Your task to perform on an android device: Search for seafood restaurants on Google Maps Image 0: 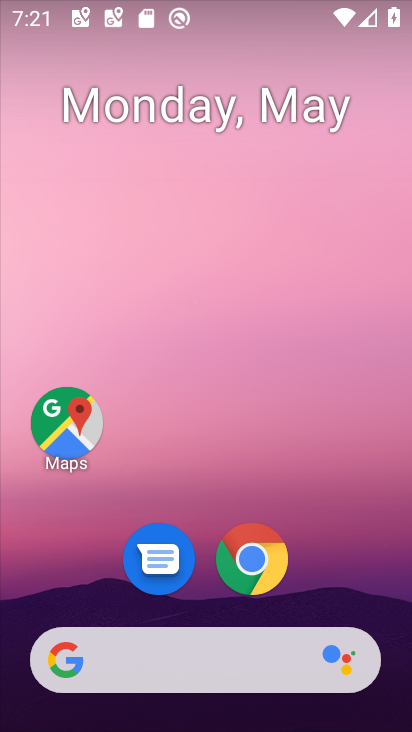
Step 0: drag from (385, 653) to (369, 346)
Your task to perform on an android device: Search for seafood restaurants on Google Maps Image 1: 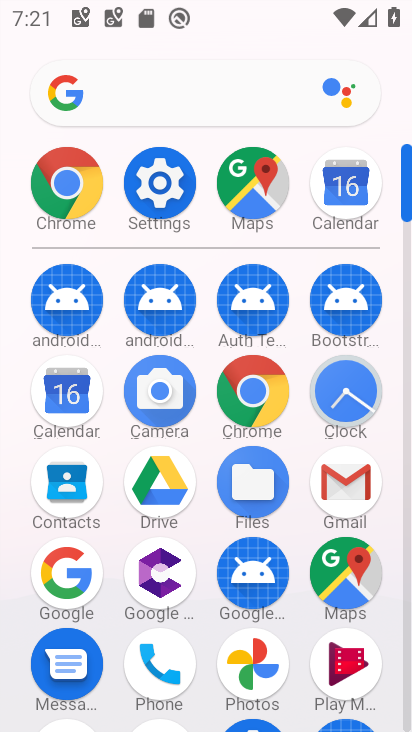
Step 1: click (319, 584)
Your task to perform on an android device: Search for seafood restaurants on Google Maps Image 2: 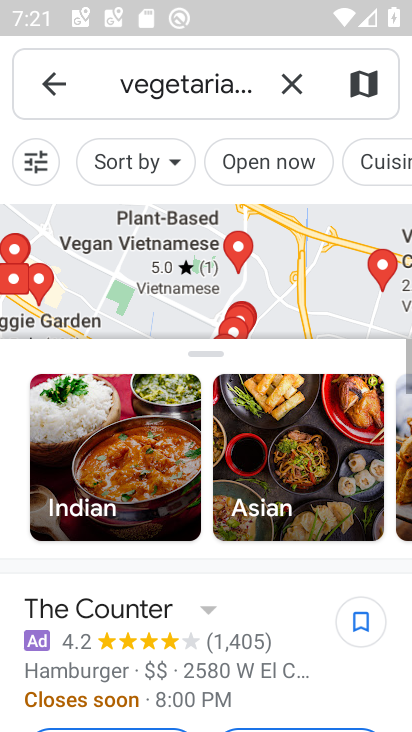
Step 2: click (289, 92)
Your task to perform on an android device: Search for seafood restaurants on Google Maps Image 3: 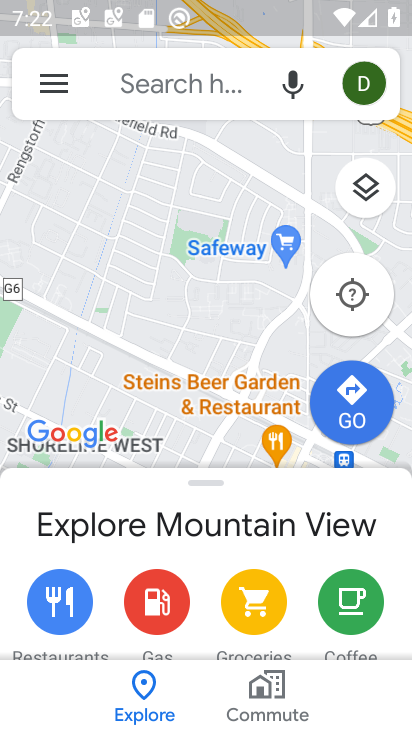
Step 3: click (141, 84)
Your task to perform on an android device: Search for seafood restaurants on Google Maps Image 4: 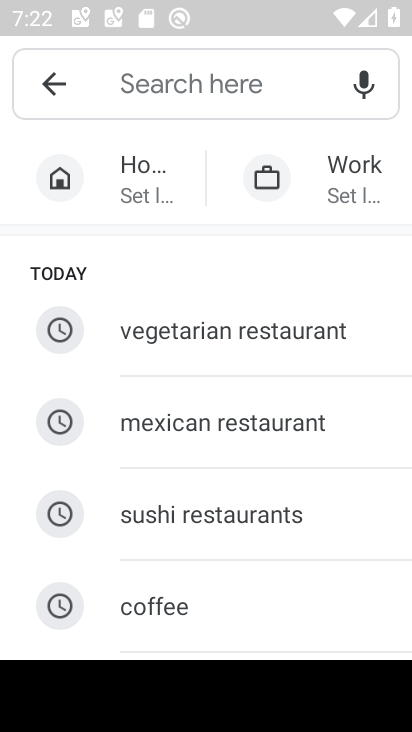
Step 4: drag from (126, 613) to (279, 121)
Your task to perform on an android device: Search for seafood restaurants on Google Maps Image 5: 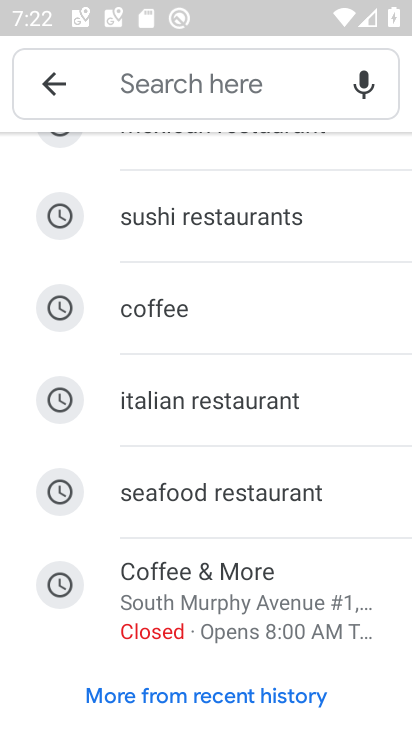
Step 5: click (128, 484)
Your task to perform on an android device: Search for seafood restaurants on Google Maps Image 6: 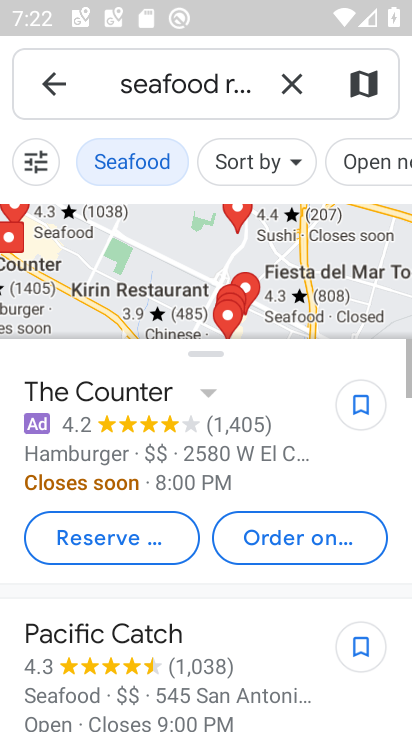
Step 6: task complete